Your task to perform on an android device: check data usage Image 0: 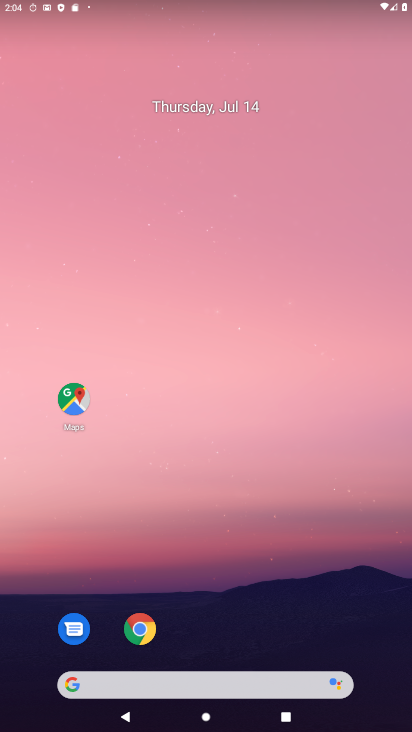
Step 0: drag from (222, 647) to (248, 0)
Your task to perform on an android device: check data usage Image 1: 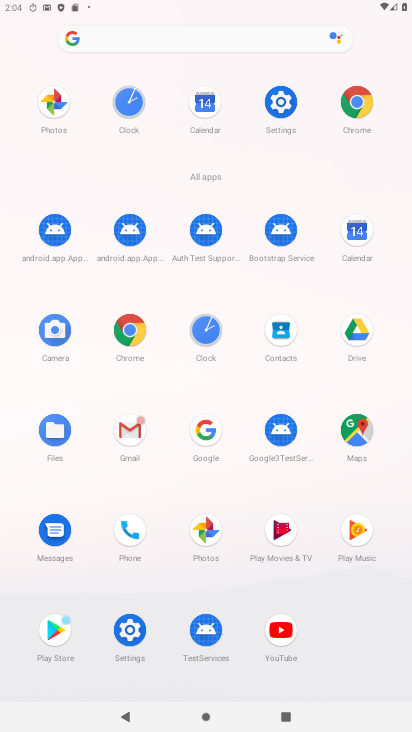
Step 1: click (131, 636)
Your task to perform on an android device: check data usage Image 2: 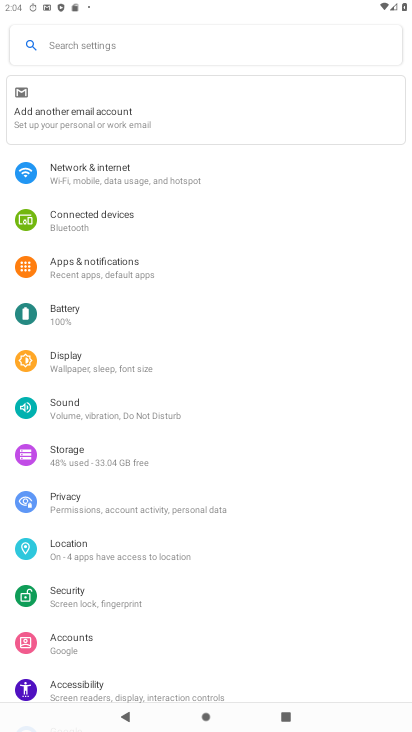
Step 2: click (130, 179)
Your task to perform on an android device: check data usage Image 3: 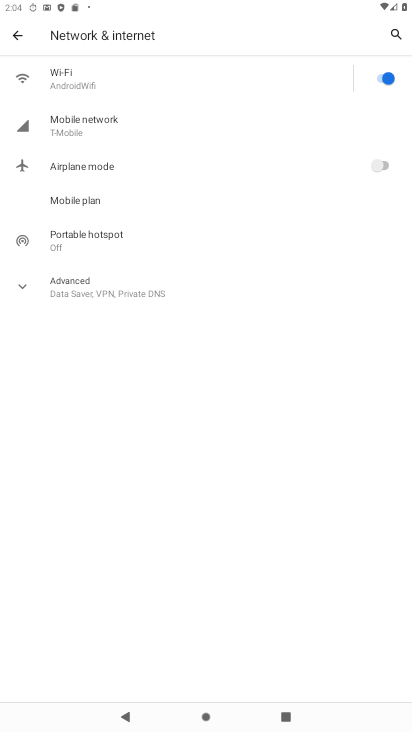
Step 3: click (96, 133)
Your task to perform on an android device: check data usage Image 4: 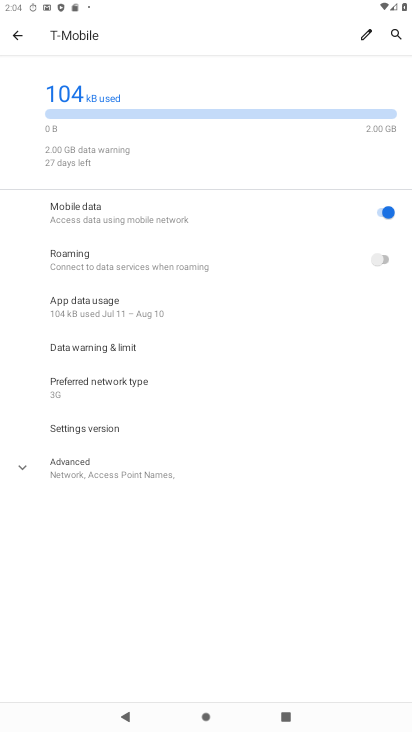
Step 4: click (141, 311)
Your task to perform on an android device: check data usage Image 5: 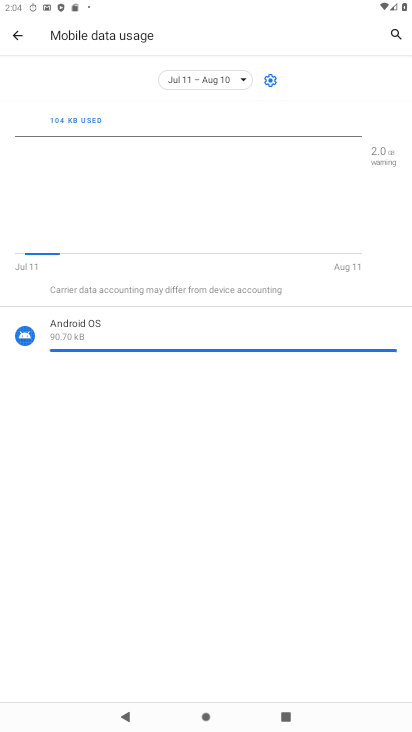
Step 5: task complete